Your task to perform on an android device: Open Yahoo.com Image 0: 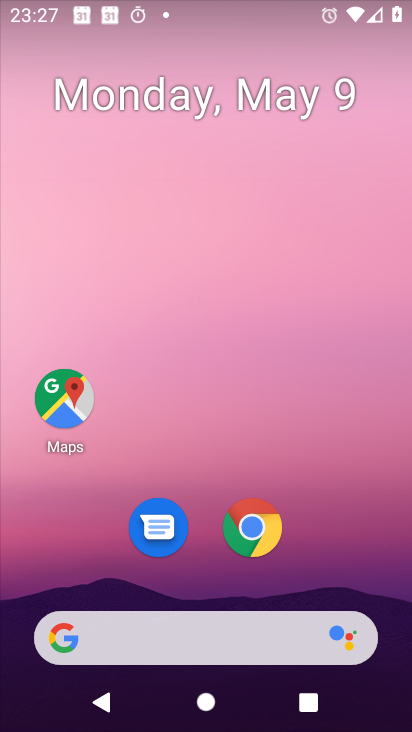
Step 0: click (258, 529)
Your task to perform on an android device: Open Yahoo.com Image 1: 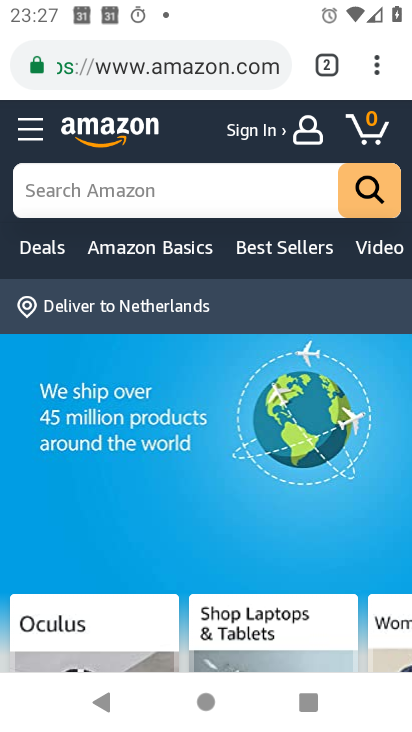
Step 1: press back button
Your task to perform on an android device: Open Yahoo.com Image 2: 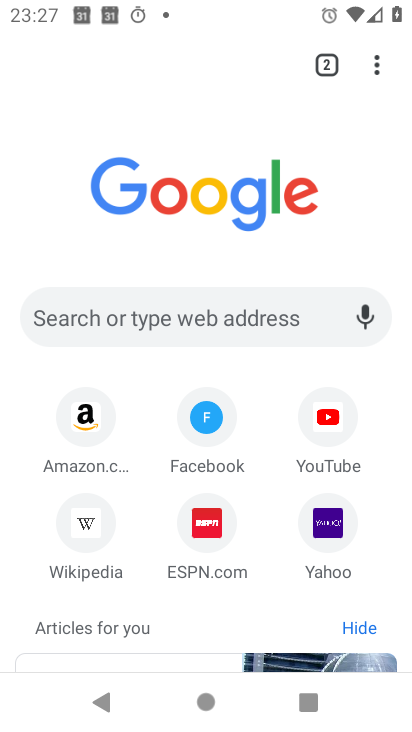
Step 2: click (329, 526)
Your task to perform on an android device: Open Yahoo.com Image 3: 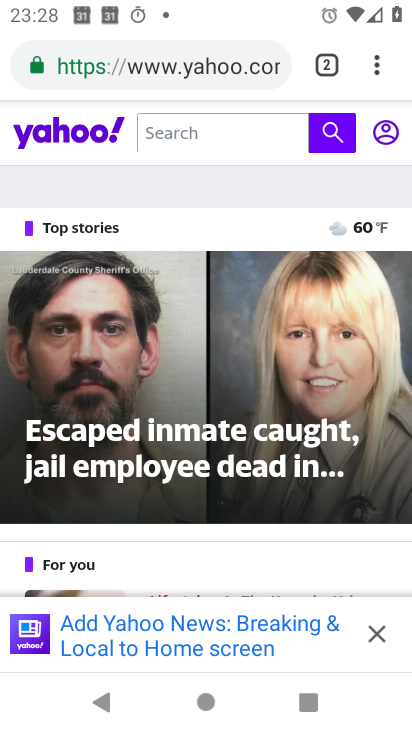
Step 3: task complete